Your task to perform on an android device: check android version Image 0: 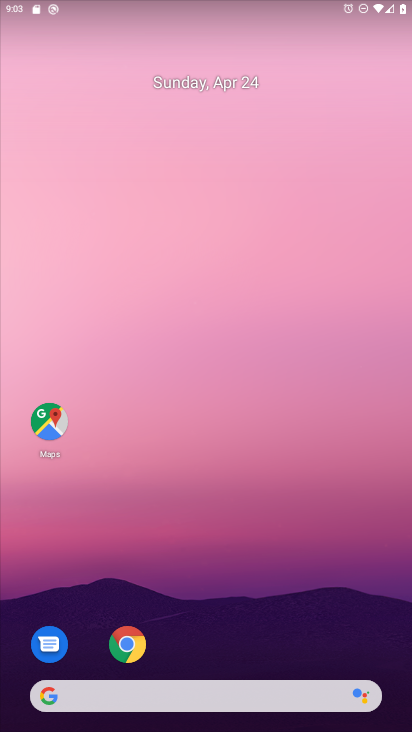
Step 0: drag from (193, 666) to (240, 36)
Your task to perform on an android device: check android version Image 1: 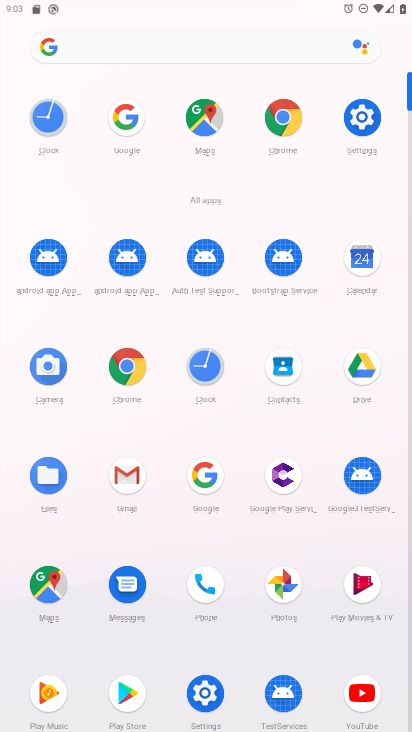
Step 1: click (366, 127)
Your task to perform on an android device: check android version Image 2: 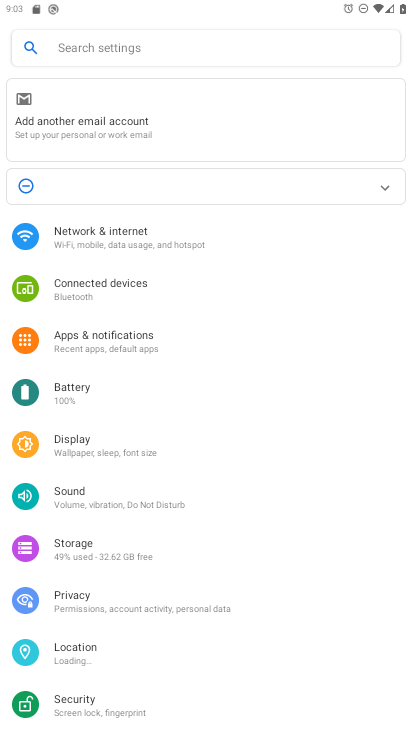
Step 2: drag from (308, 560) to (303, 51)
Your task to perform on an android device: check android version Image 3: 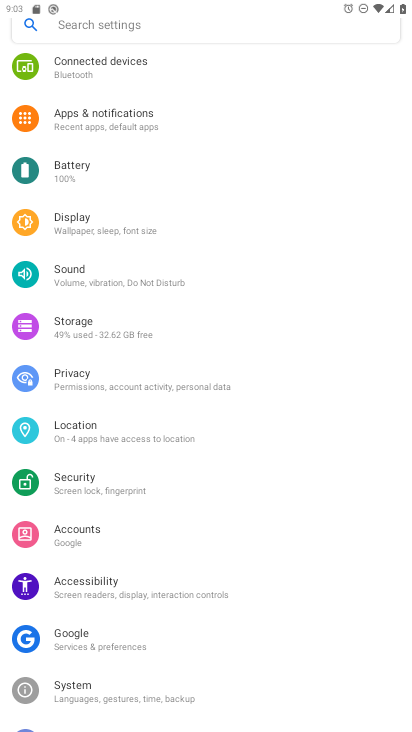
Step 3: click (79, 718)
Your task to perform on an android device: check android version Image 4: 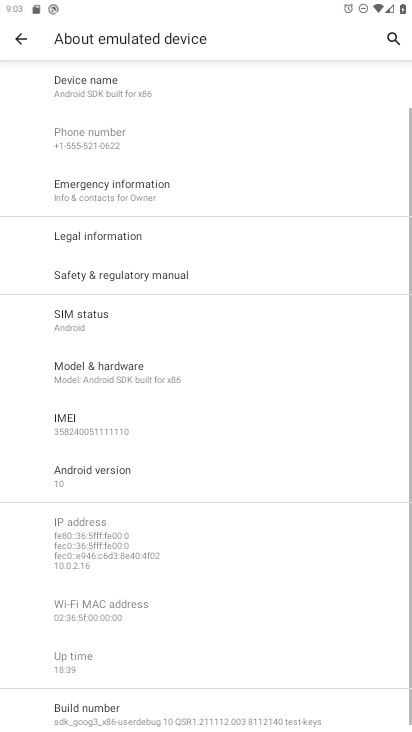
Step 4: drag from (78, 717) to (54, 347)
Your task to perform on an android device: check android version Image 5: 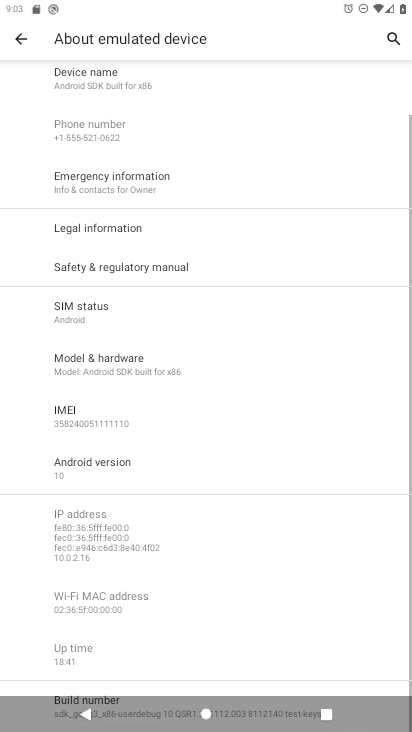
Step 5: click (35, 27)
Your task to perform on an android device: check android version Image 6: 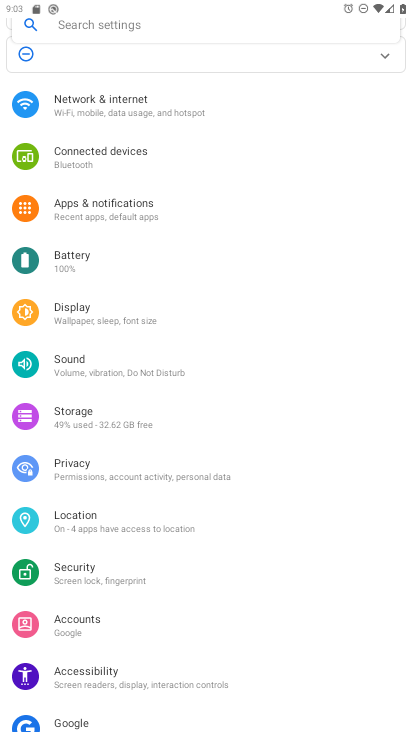
Step 6: drag from (129, 665) to (129, 38)
Your task to perform on an android device: check android version Image 7: 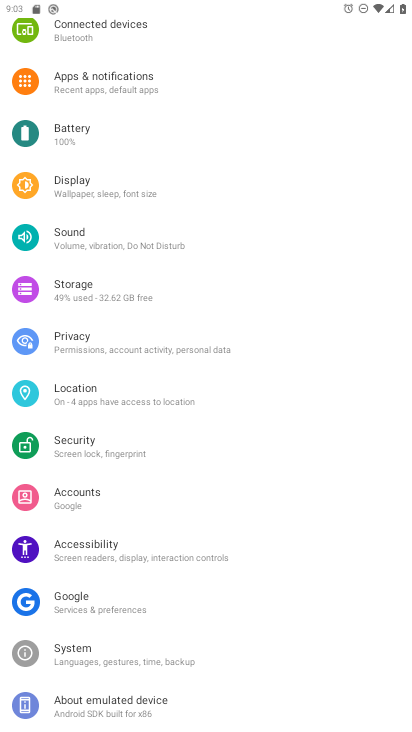
Step 7: click (135, 708)
Your task to perform on an android device: check android version Image 8: 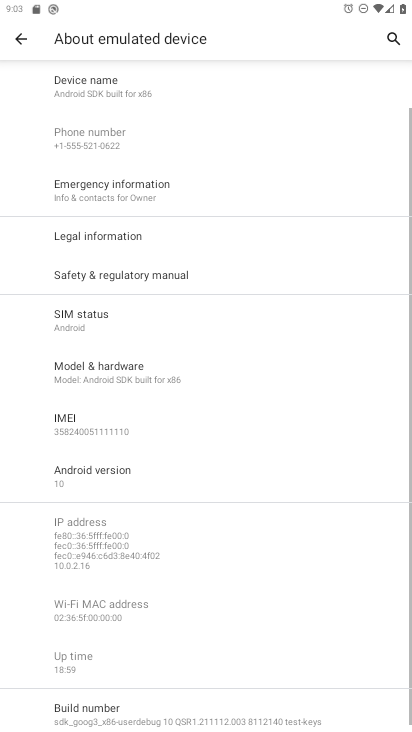
Step 8: click (102, 481)
Your task to perform on an android device: check android version Image 9: 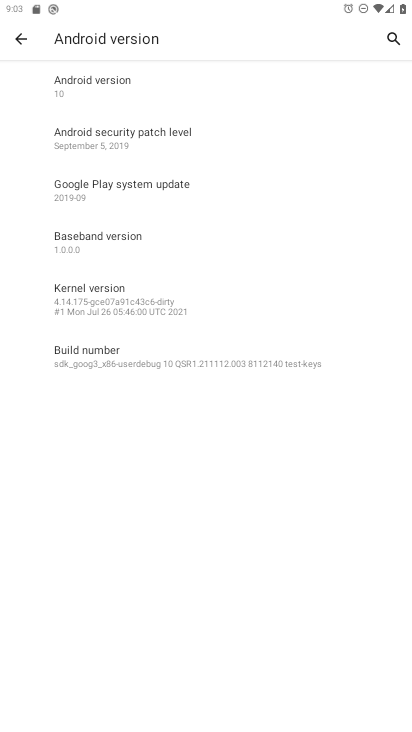
Step 9: task complete